Your task to perform on an android device: open app "Messenger Lite" (install if not already installed) Image 0: 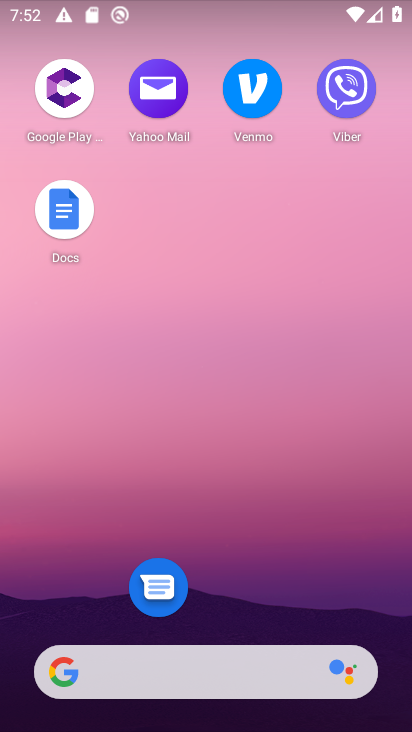
Step 0: drag from (233, 672) to (151, 187)
Your task to perform on an android device: open app "Messenger Lite" (install if not already installed) Image 1: 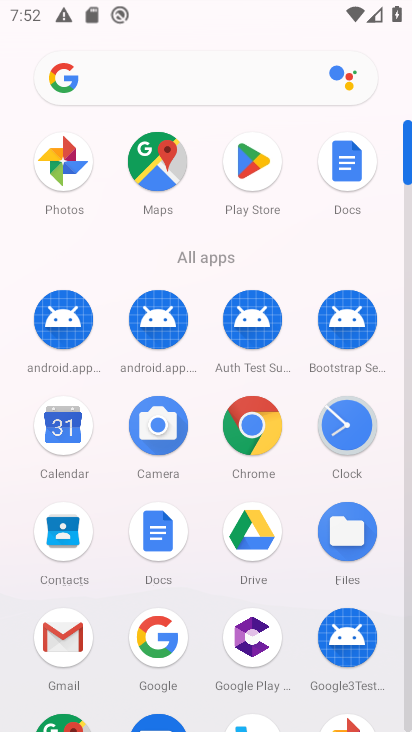
Step 1: drag from (209, 360) to (253, 3)
Your task to perform on an android device: open app "Messenger Lite" (install if not already installed) Image 2: 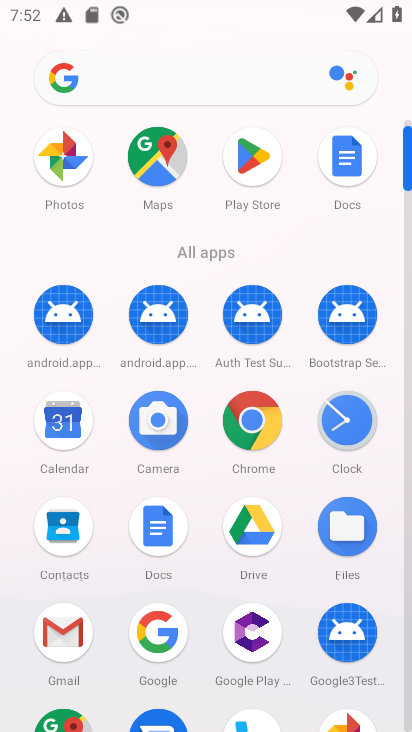
Step 2: click (257, 154)
Your task to perform on an android device: open app "Messenger Lite" (install if not already installed) Image 3: 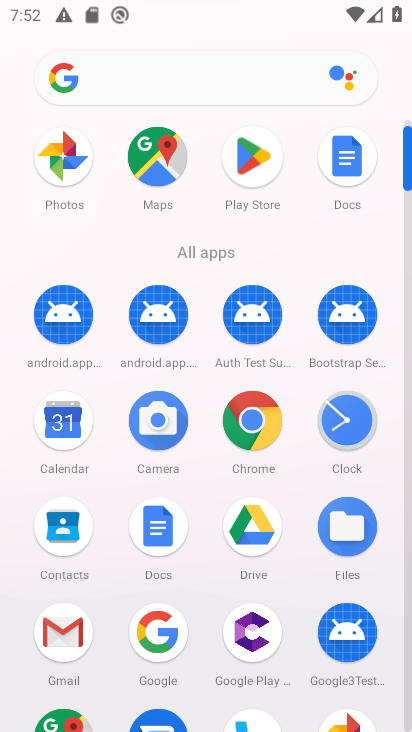
Step 3: click (255, 157)
Your task to perform on an android device: open app "Messenger Lite" (install if not already installed) Image 4: 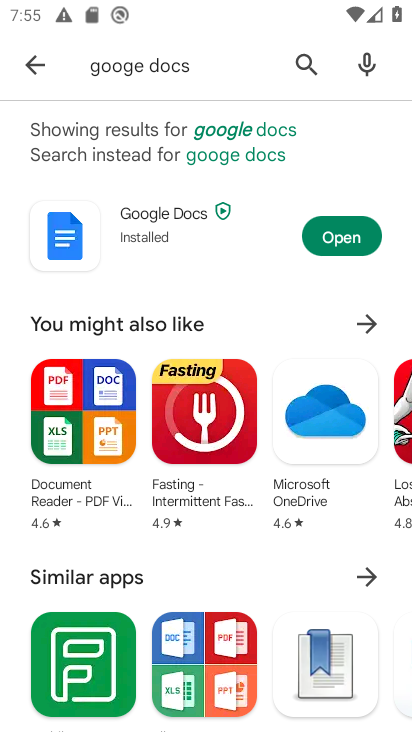
Step 4: click (29, 62)
Your task to perform on an android device: open app "Messenger Lite" (install if not already installed) Image 5: 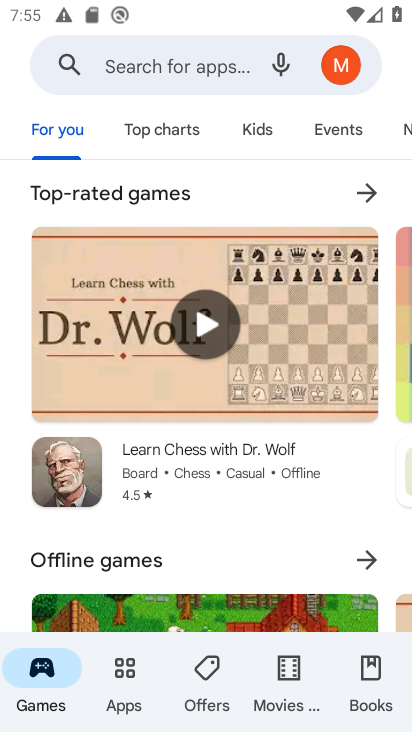
Step 5: click (123, 62)
Your task to perform on an android device: open app "Messenger Lite" (install if not already installed) Image 6: 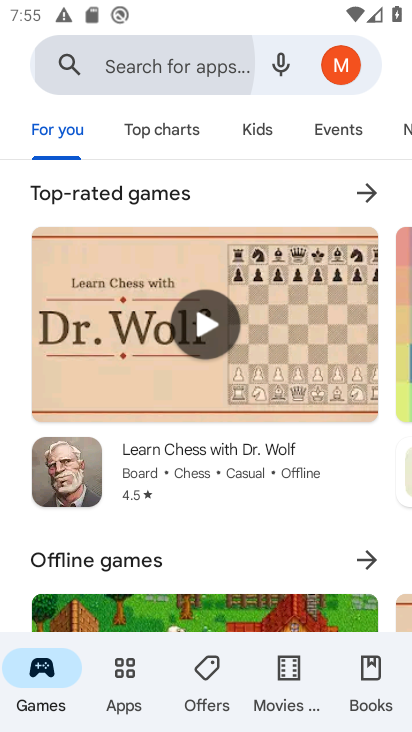
Step 6: click (124, 62)
Your task to perform on an android device: open app "Messenger Lite" (install if not already installed) Image 7: 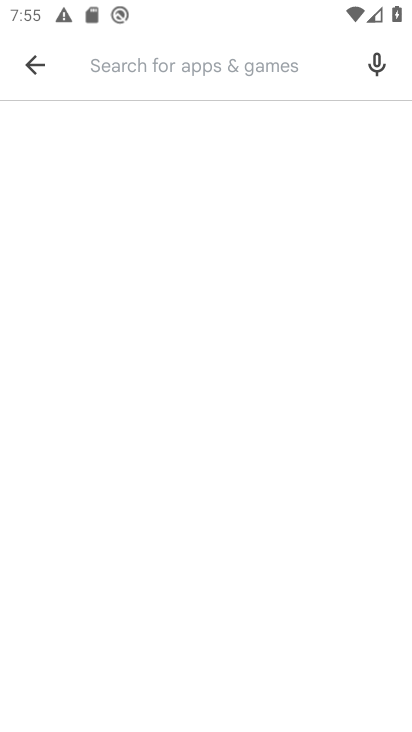
Step 7: click (124, 62)
Your task to perform on an android device: open app "Messenger Lite" (install if not already installed) Image 8: 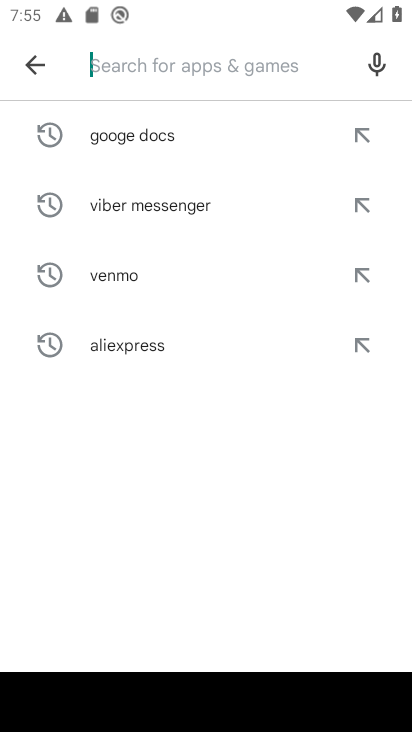
Step 8: click (113, 63)
Your task to perform on an android device: open app "Messenger Lite" (install if not already installed) Image 9: 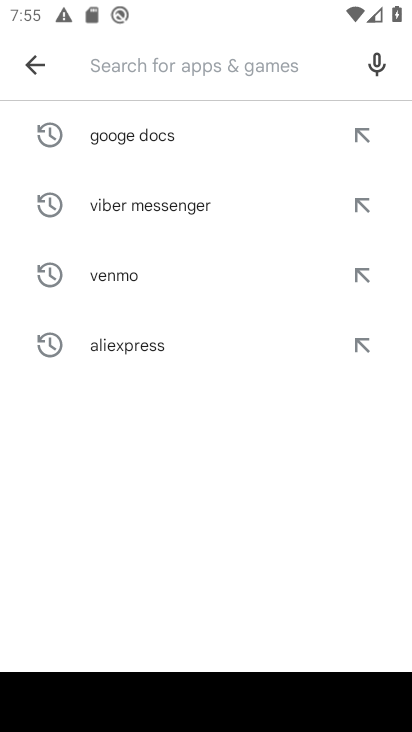
Step 9: type "Messenger Lite"
Your task to perform on an android device: open app "Messenger Lite" (install if not already installed) Image 10: 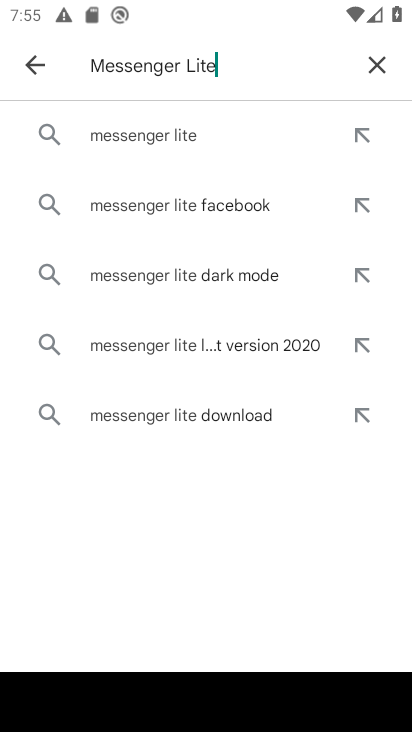
Step 10: click (165, 129)
Your task to perform on an android device: open app "Messenger Lite" (install if not already installed) Image 11: 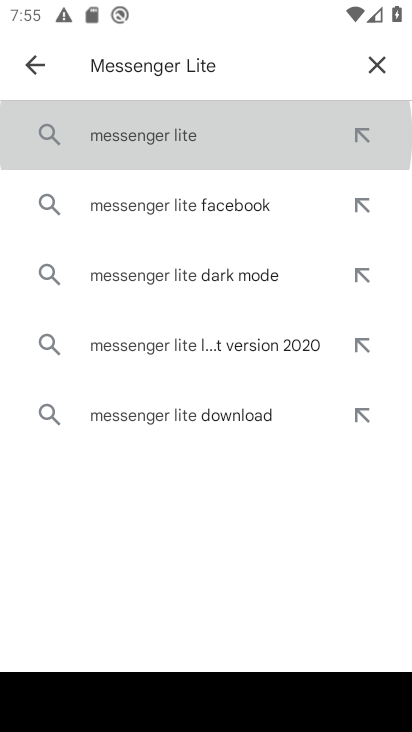
Step 11: click (164, 135)
Your task to perform on an android device: open app "Messenger Lite" (install if not already installed) Image 12: 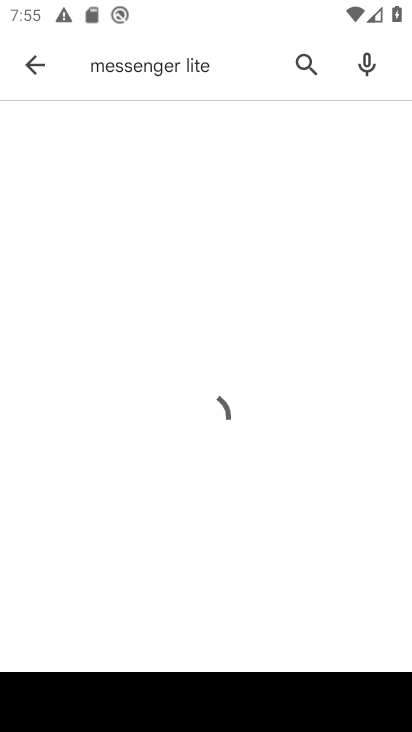
Step 12: click (166, 141)
Your task to perform on an android device: open app "Messenger Lite" (install if not already installed) Image 13: 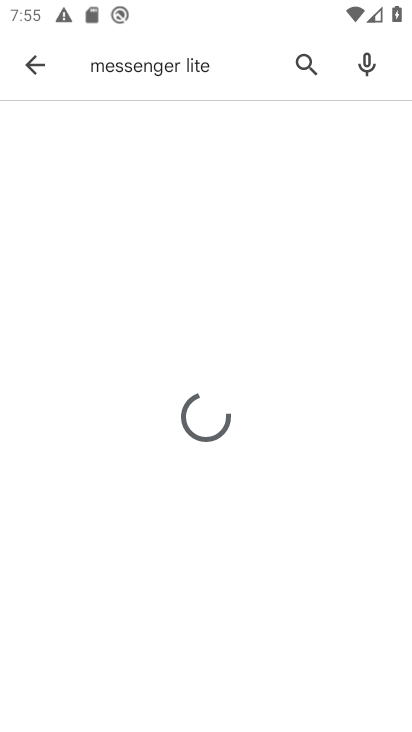
Step 13: click (165, 142)
Your task to perform on an android device: open app "Messenger Lite" (install if not already installed) Image 14: 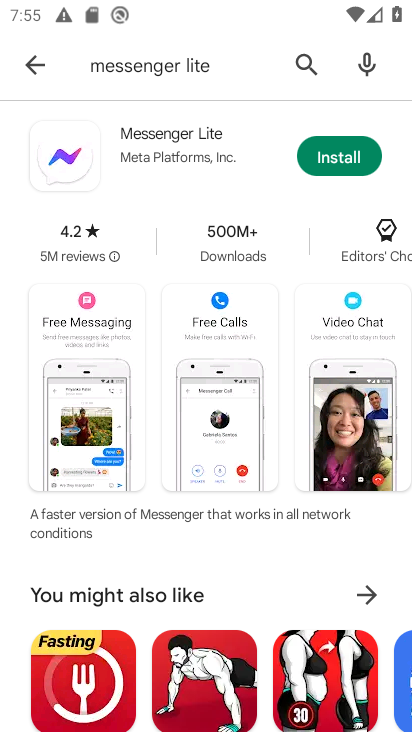
Step 14: click (346, 162)
Your task to perform on an android device: open app "Messenger Lite" (install if not already installed) Image 15: 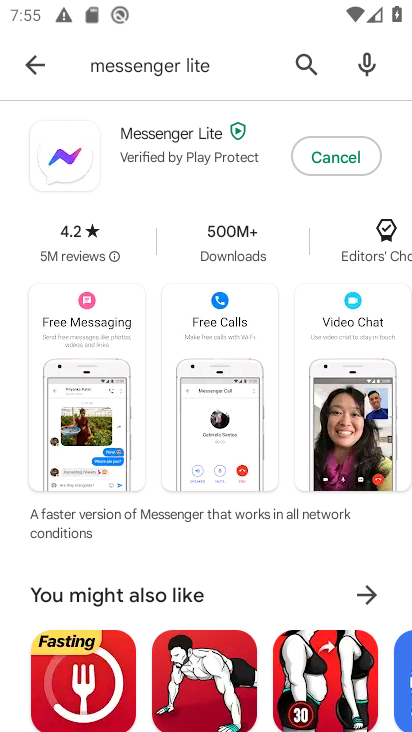
Step 15: click (342, 159)
Your task to perform on an android device: open app "Messenger Lite" (install if not already installed) Image 16: 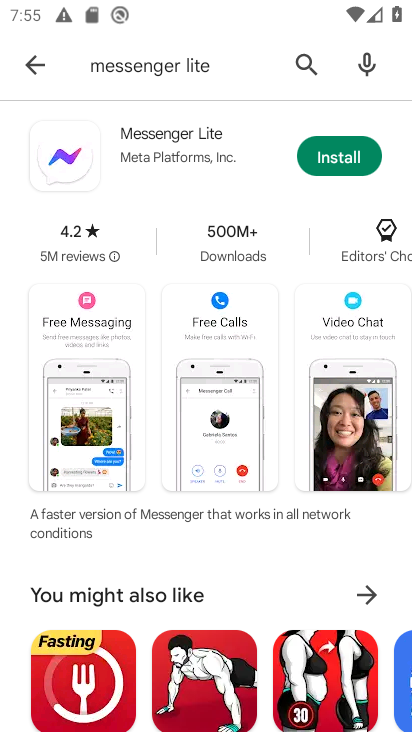
Step 16: click (341, 156)
Your task to perform on an android device: open app "Messenger Lite" (install if not already installed) Image 17: 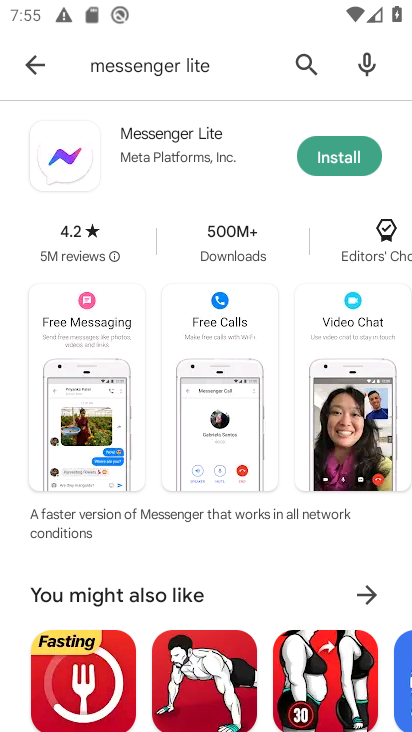
Step 17: click (343, 159)
Your task to perform on an android device: open app "Messenger Lite" (install if not already installed) Image 18: 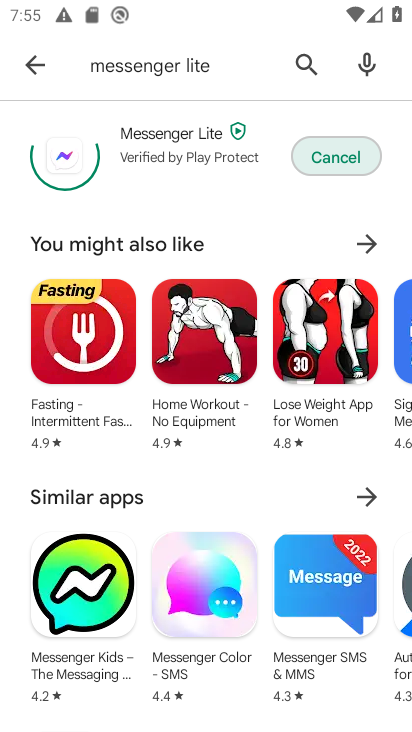
Step 18: click (339, 154)
Your task to perform on an android device: open app "Messenger Lite" (install if not already installed) Image 19: 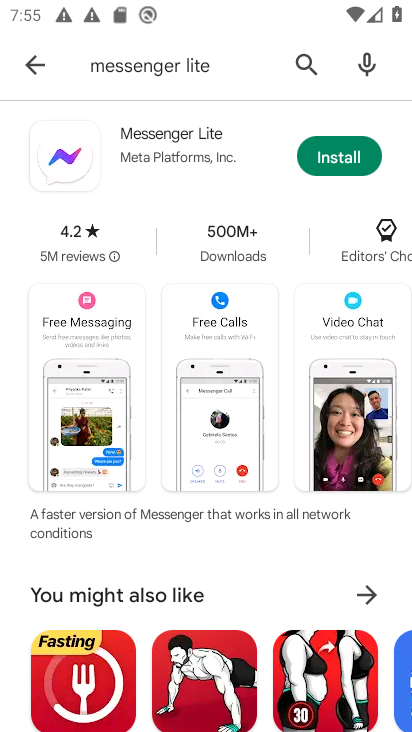
Step 19: task complete